Your task to perform on an android device: Open Yahoo.com Image 0: 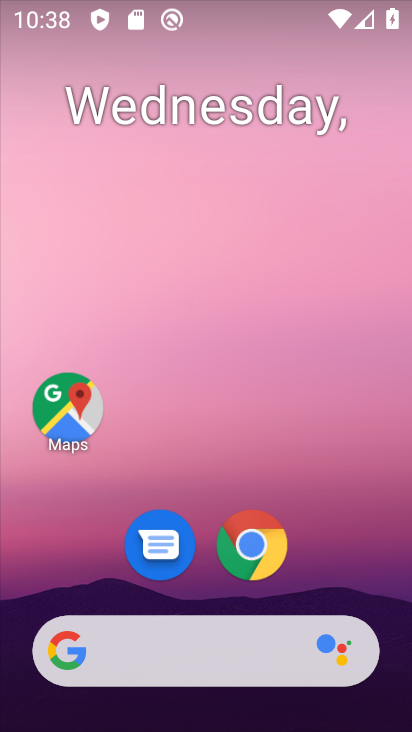
Step 0: click (232, 655)
Your task to perform on an android device: Open Yahoo.com Image 1: 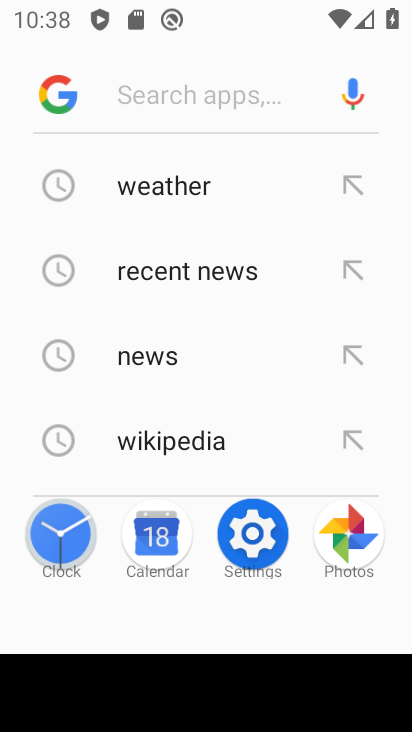
Step 1: type "yahoo.com"
Your task to perform on an android device: Open Yahoo.com Image 2: 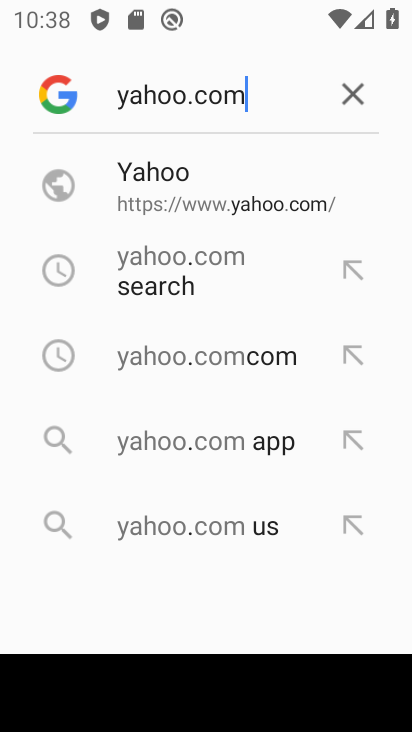
Step 2: click (305, 199)
Your task to perform on an android device: Open Yahoo.com Image 3: 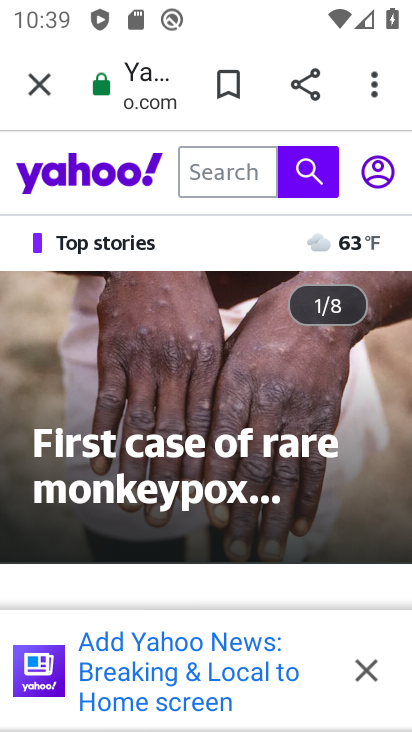
Step 3: task complete